Your task to perform on an android device: Open battery settings Image 0: 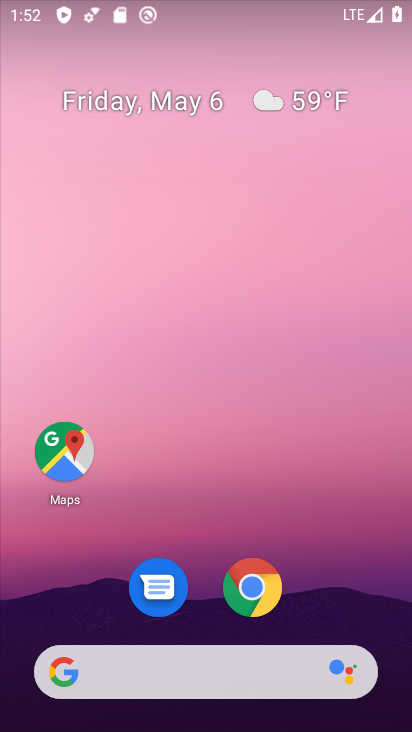
Step 0: drag from (331, 582) to (337, 69)
Your task to perform on an android device: Open battery settings Image 1: 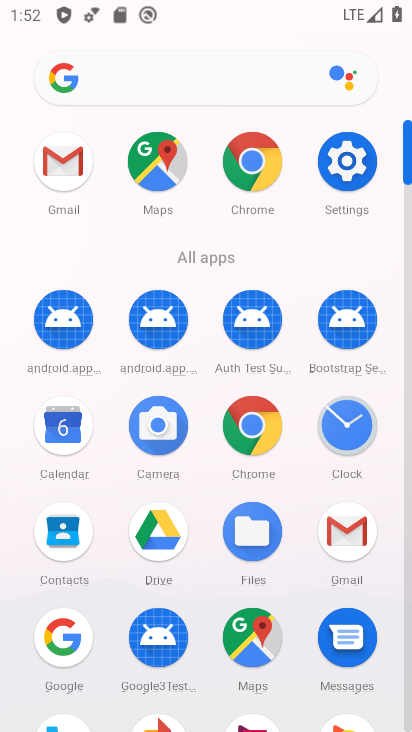
Step 1: click (335, 161)
Your task to perform on an android device: Open battery settings Image 2: 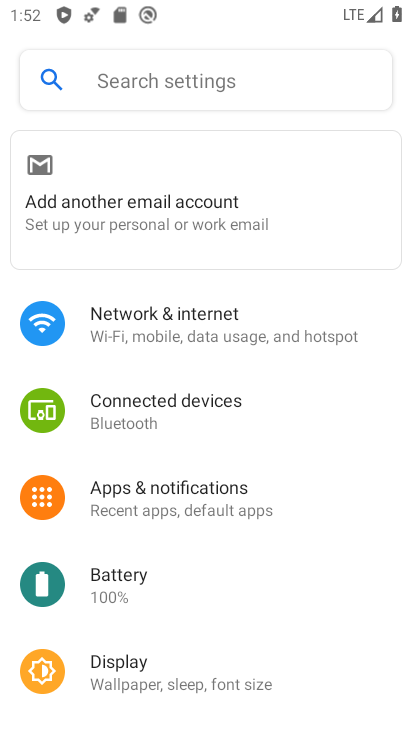
Step 2: click (107, 578)
Your task to perform on an android device: Open battery settings Image 3: 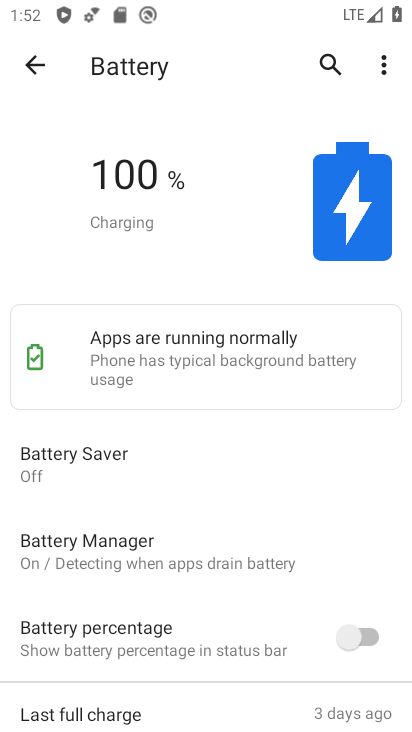
Step 3: task complete